Your task to perform on an android device: Open Google Chrome and open the bookmarks view Image 0: 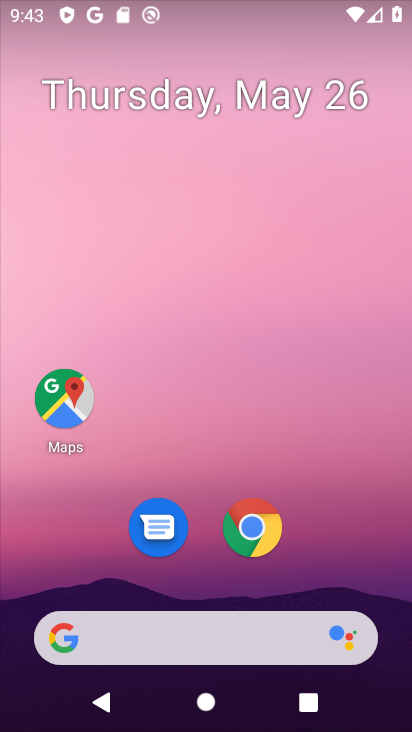
Step 0: click (277, 525)
Your task to perform on an android device: Open Google Chrome and open the bookmarks view Image 1: 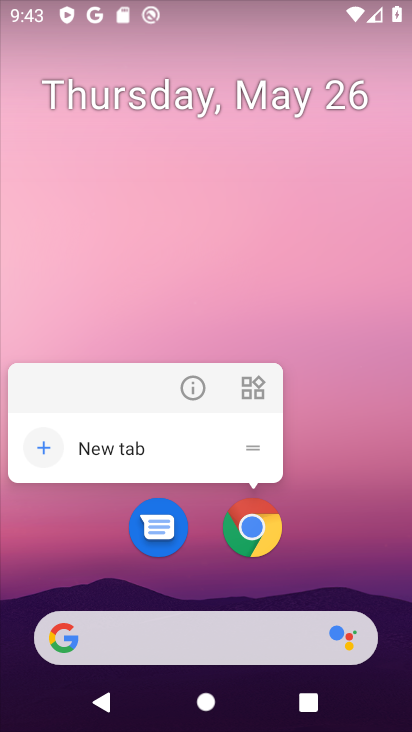
Step 1: click (259, 536)
Your task to perform on an android device: Open Google Chrome and open the bookmarks view Image 2: 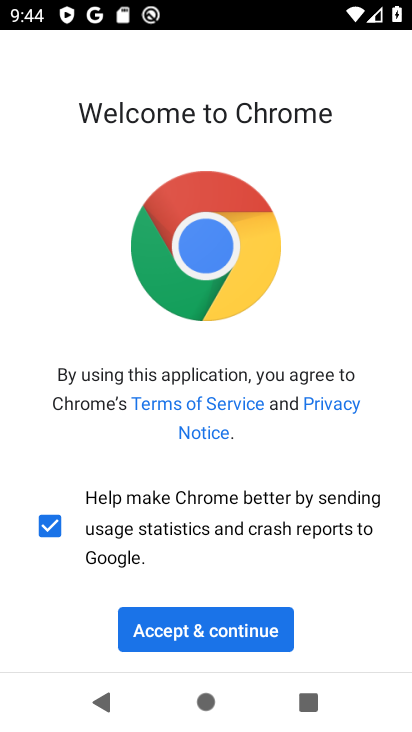
Step 2: click (260, 624)
Your task to perform on an android device: Open Google Chrome and open the bookmarks view Image 3: 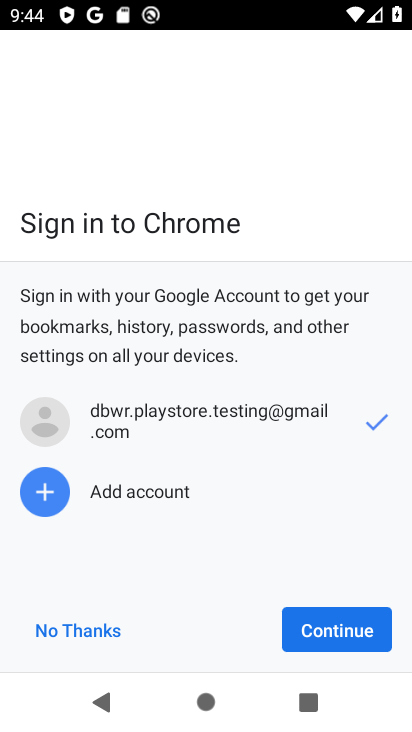
Step 3: click (313, 621)
Your task to perform on an android device: Open Google Chrome and open the bookmarks view Image 4: 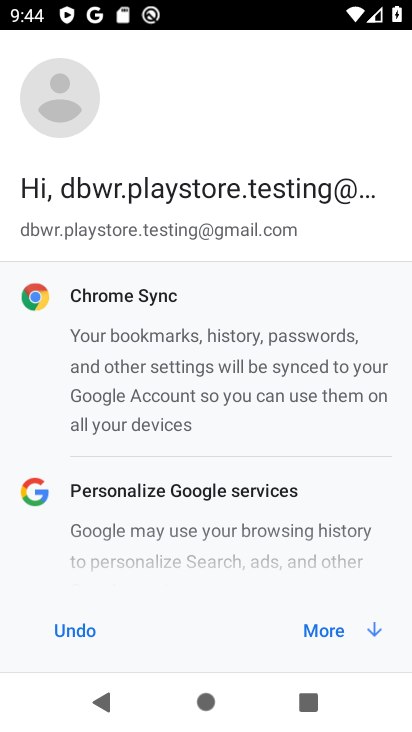
Step 4: click (370, 641)
Your task to perform on an android device: Open Google Chrome and open the bookmarks view Image 5: 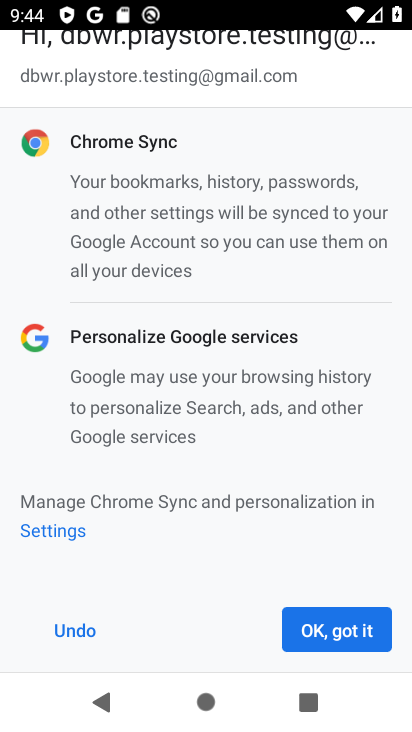
Step 5: click (370, 642)
Your task to perform on an android device: Open Google Chrome and open the bookmarks view Image 6: 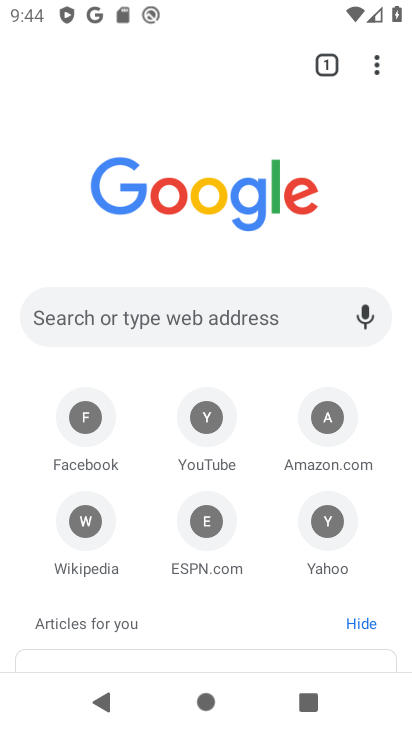
Step 6: click (371, 58)
Your task to perform on an android device: Open Google Chrome and open the bookmarks view Image 7: 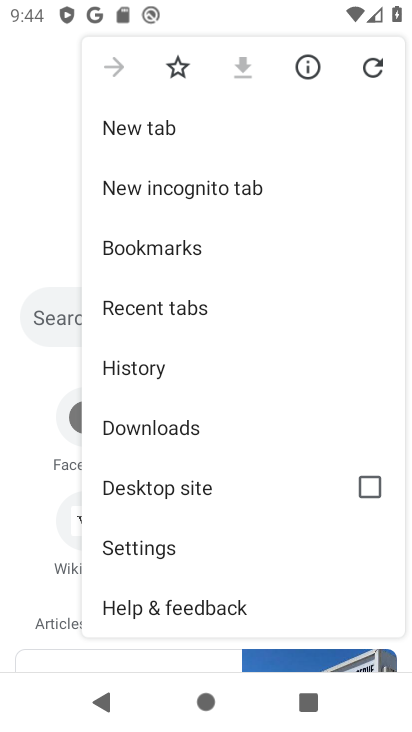
Step 7: click (275, 247)
Your task to perform on an android device: Open Google Chrome and open the bookmarks view Image 8: 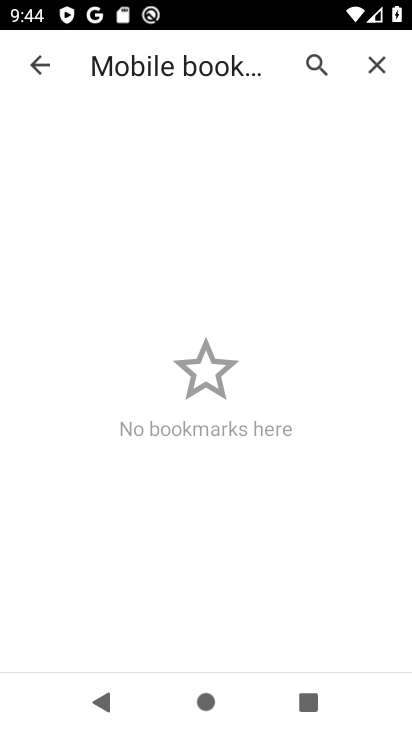
Step 8: task complete